Your task to perform on an android device: What's the weather today? Image 0: 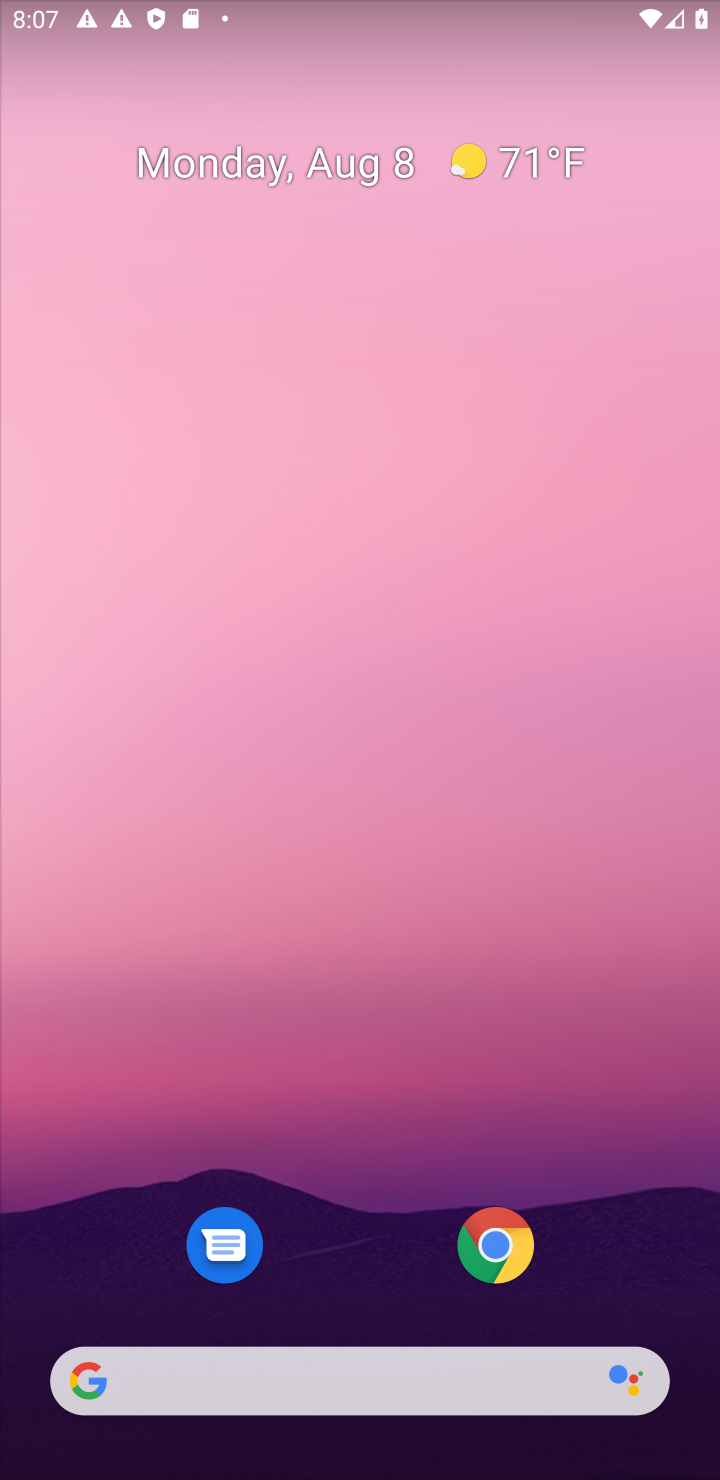
Step 0: press home button
Your task to perform on an android device: What's the weather today? Image 1: 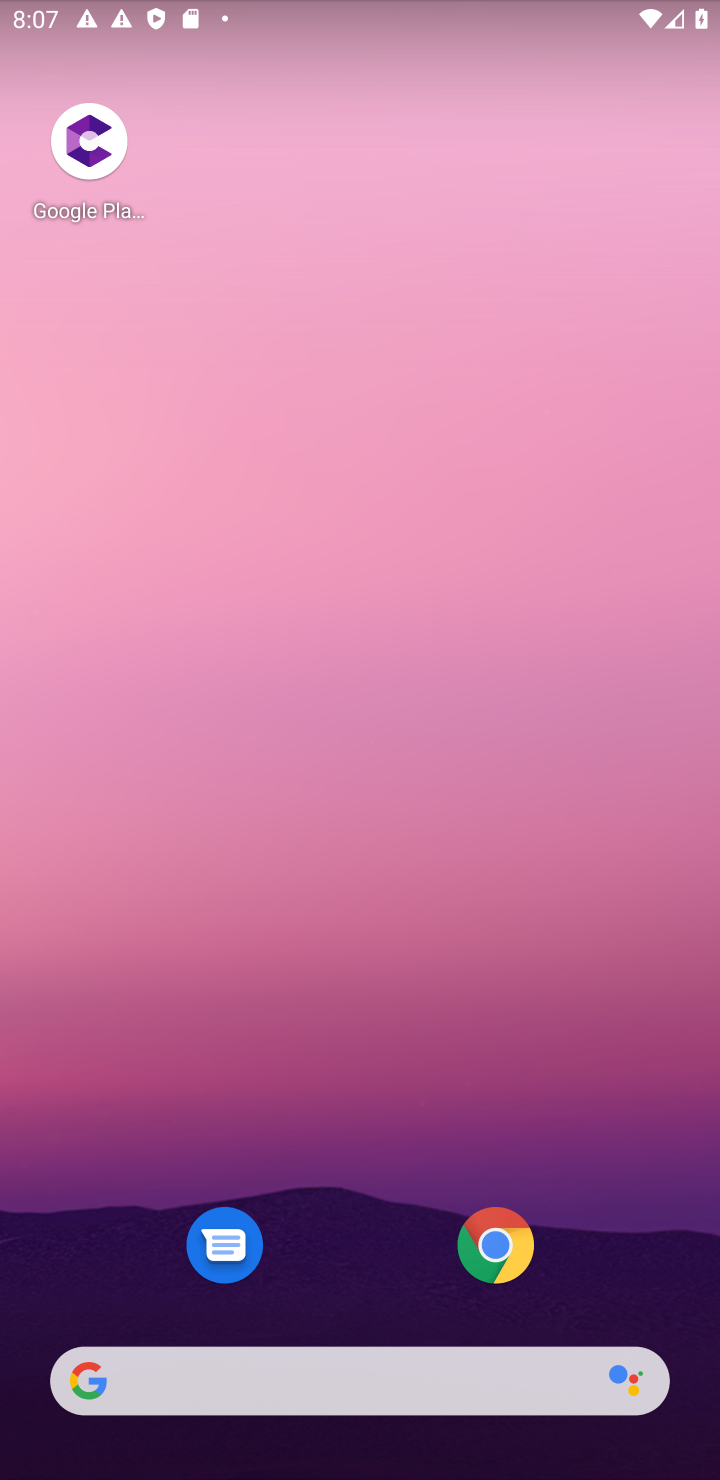
Step 1: click (275, 1378)
Your task to perform on an android device: What's the weather today? Image 2: 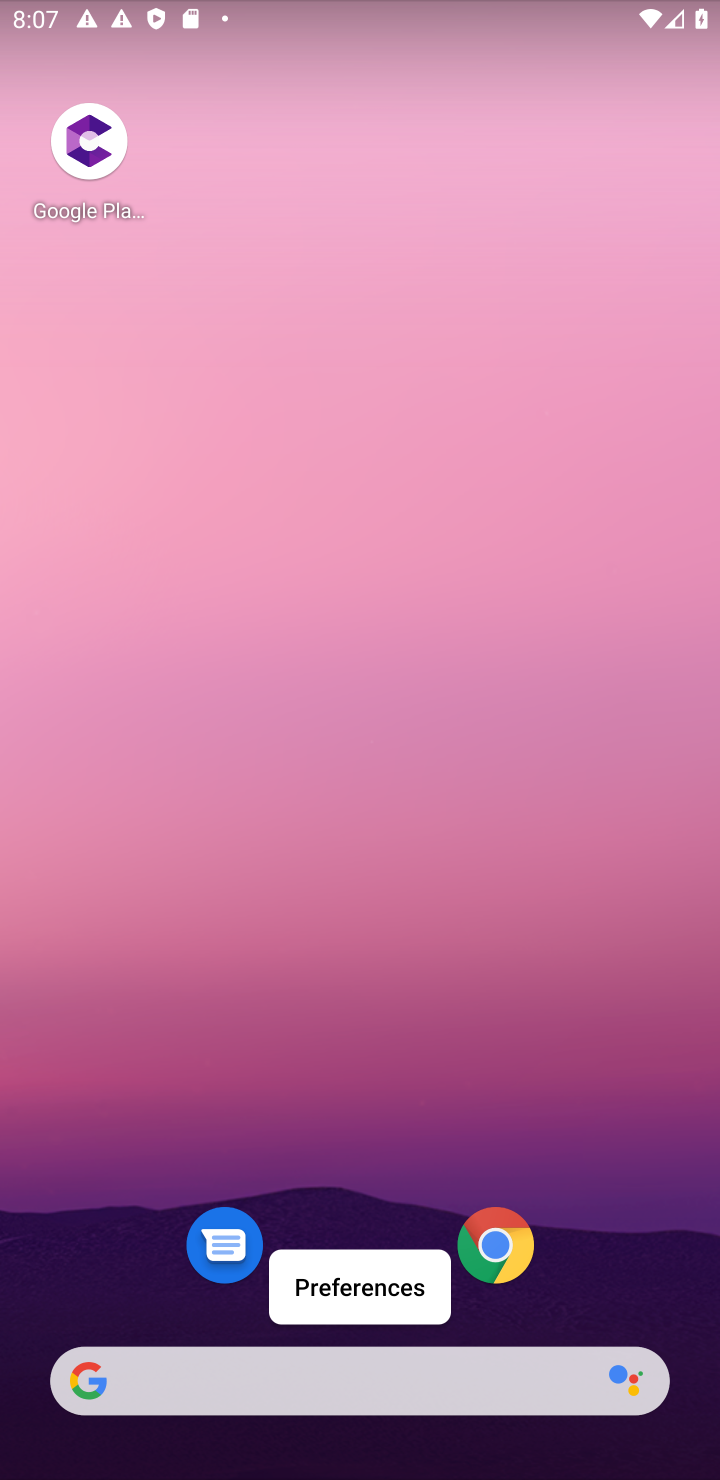
Step 2: click (298, 1374)
Your task to perform on an android device: What's the weather today? Image 3: 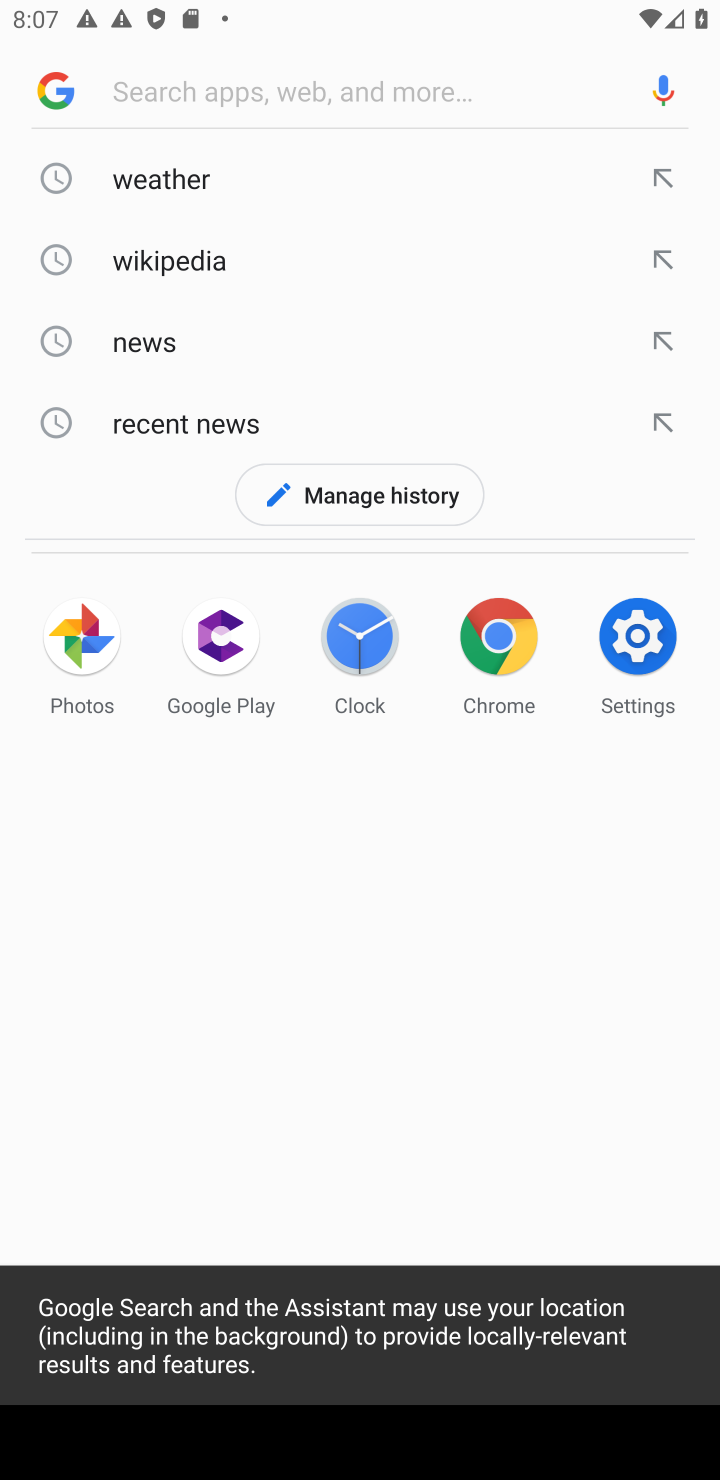
Step 3: click (212, 179)
Your task to perform on an android device: What's the weather today? Image 4: 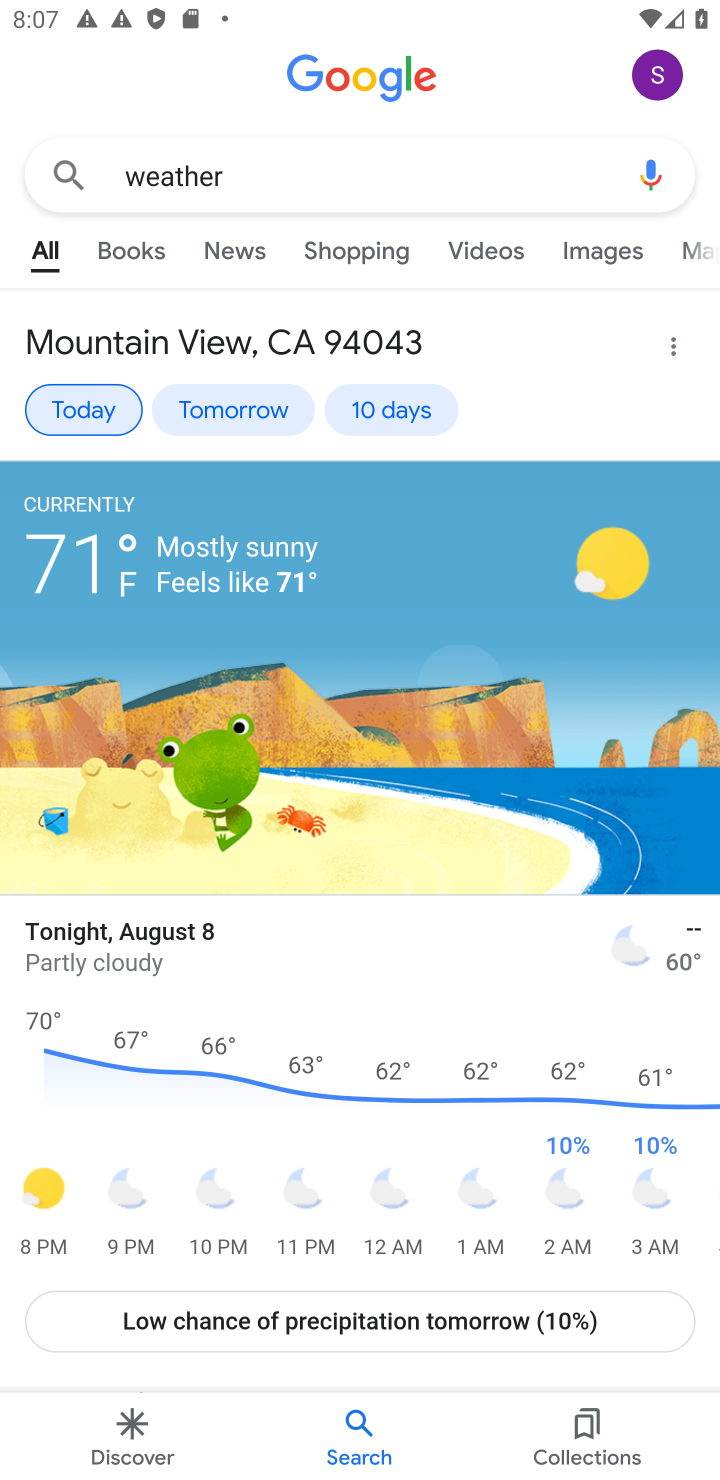
Step 4: task complete